Your task to perform on an android device: Go to privacy settings Image 0: 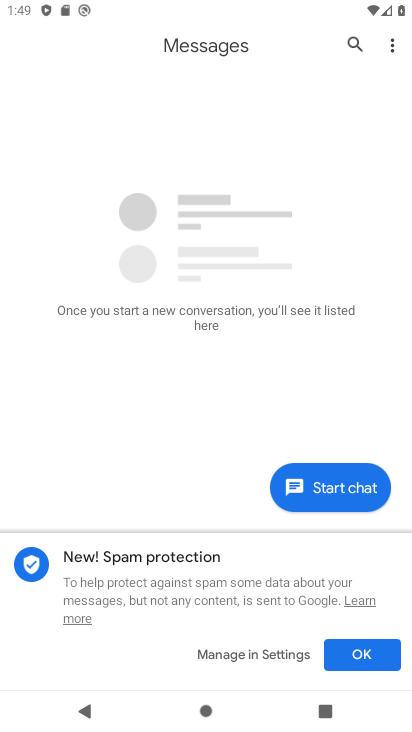
Step 0: press home button
Your task to perform on an android device: Go to privacy settings Image 1: 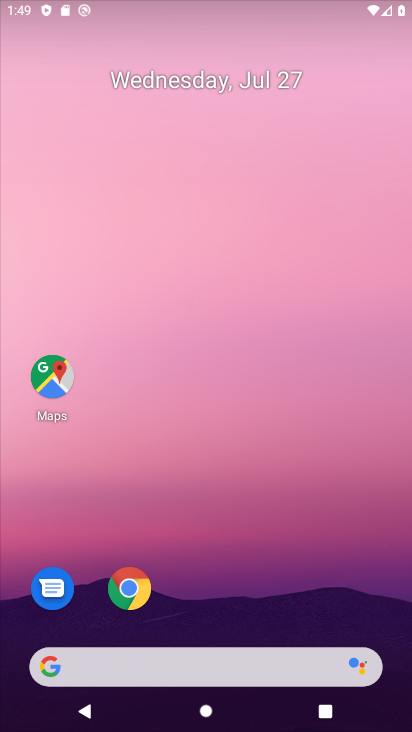
Step 1: drag from (238, 589) to (237, 141)
Your task to perform on an android device: Go to privacy settings Image 2: 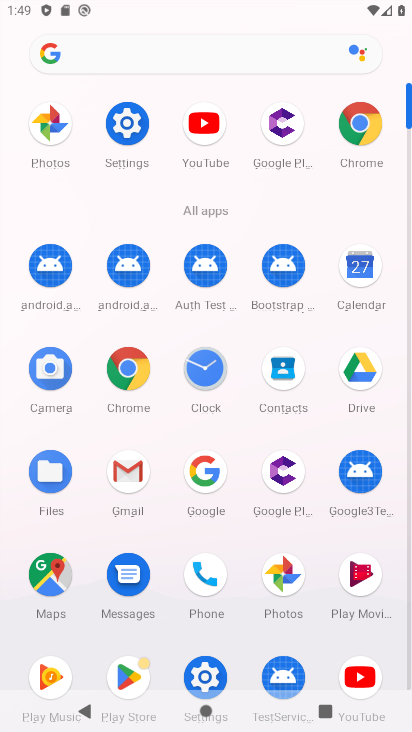
Step 2: click (126, 135)
Your task to perform on an android device: Go to privacy settings Image 3: 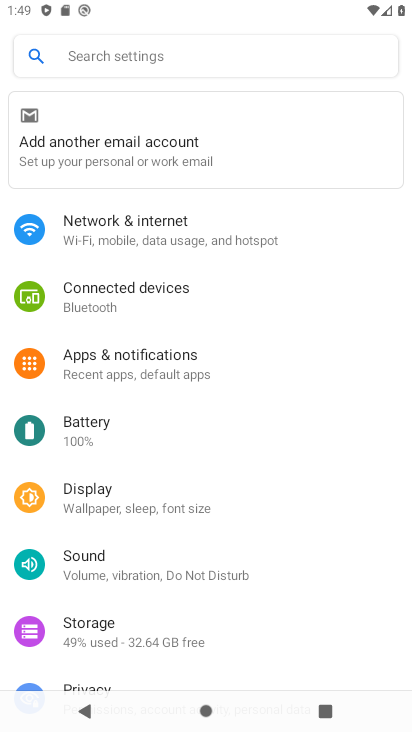
Step 3: drag from (129, 569) to (134, 338)
Your task to perform on an android device: Go to privacy settings Image 4: 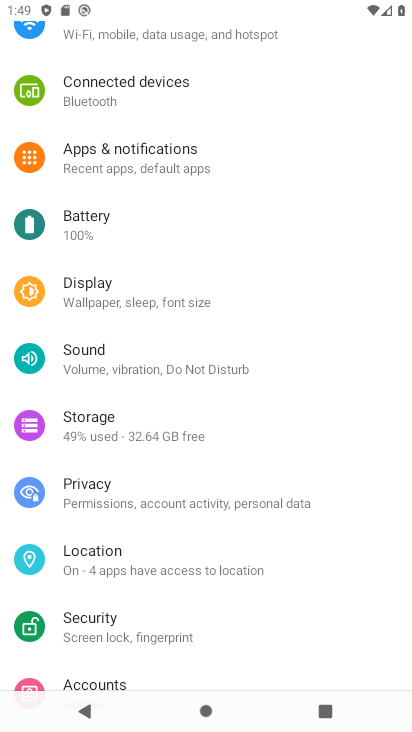
Step 4: click (113, 483)
Your task to perform on an android device: Go to privacy settings Image 5: 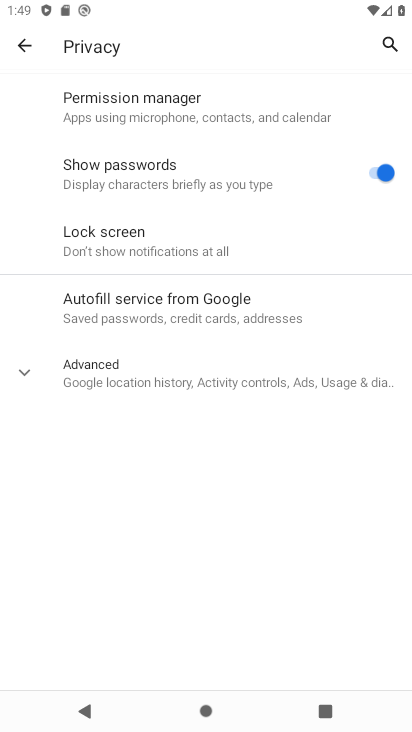
Step 5: task complete